Your task to perform on an android device: Open CNN.com Image 0: 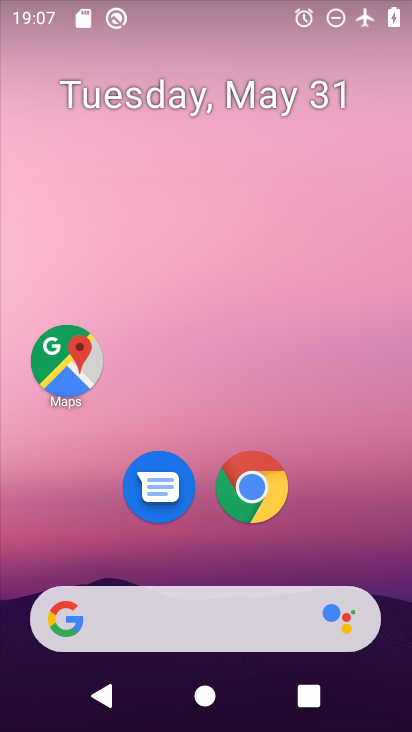
Step 0: click (238, 603)
Your task to perform on an android device: Open CNN.com Image 1: 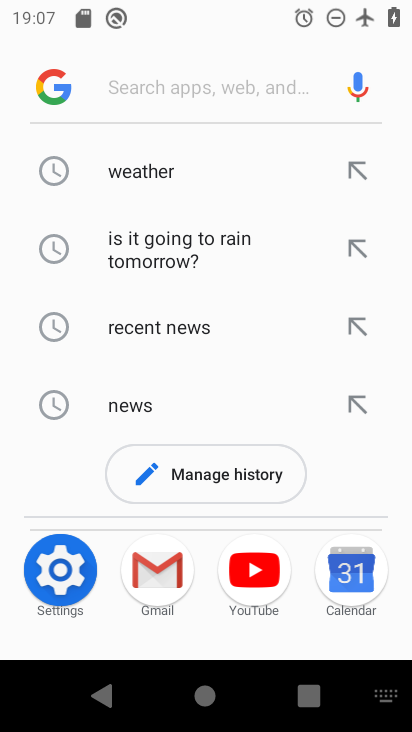
Step 1: type "cnn.com"
Your task to perform on an android device: Open CNN.com Image 2: 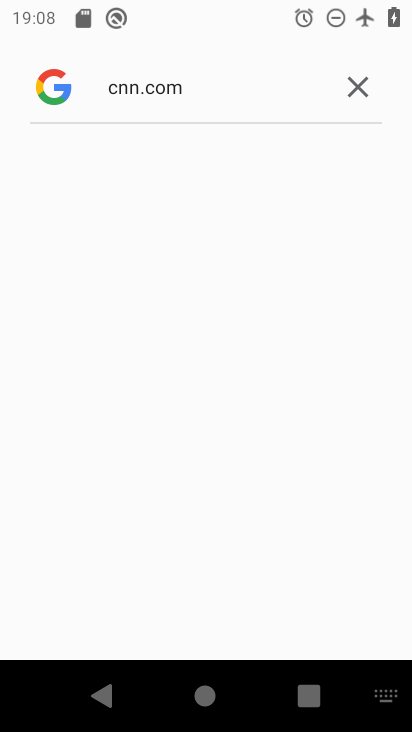
Step 2: click (205, 84)
Your task to perform on an android device: Open CNN.com Image 3: 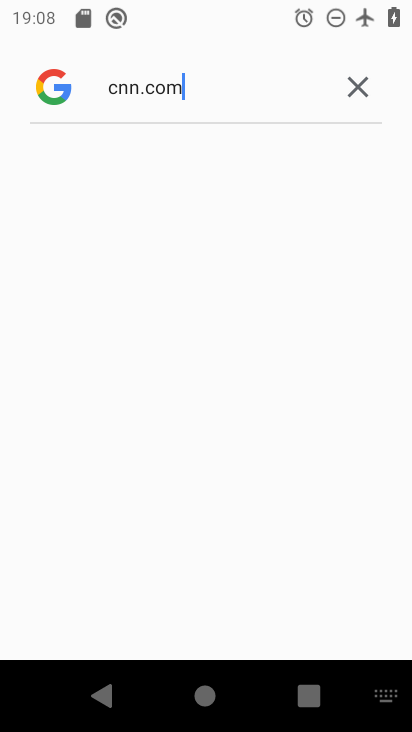
Step 3: task complete